Your task to perform on an android device: Clear the cart on ebay.com. Image 0: 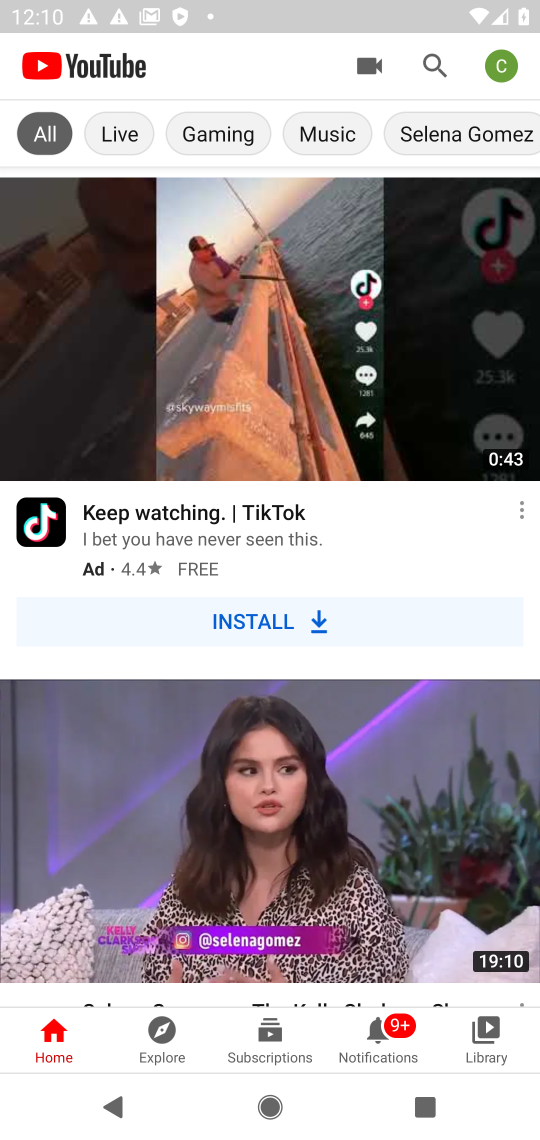
Step 0: press home button
Your task to perform on an android device: Clear the cart on ebay.com. Image 1: 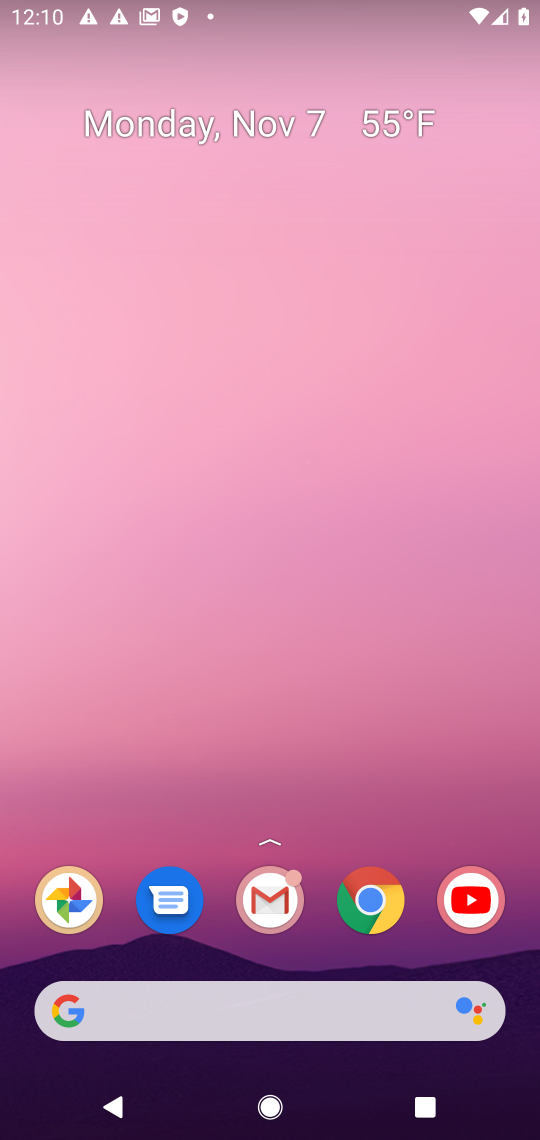
Step 1: click (195, 1008)
Your task to perform on an android device: Clear the cart on ebay.com. Image 2: 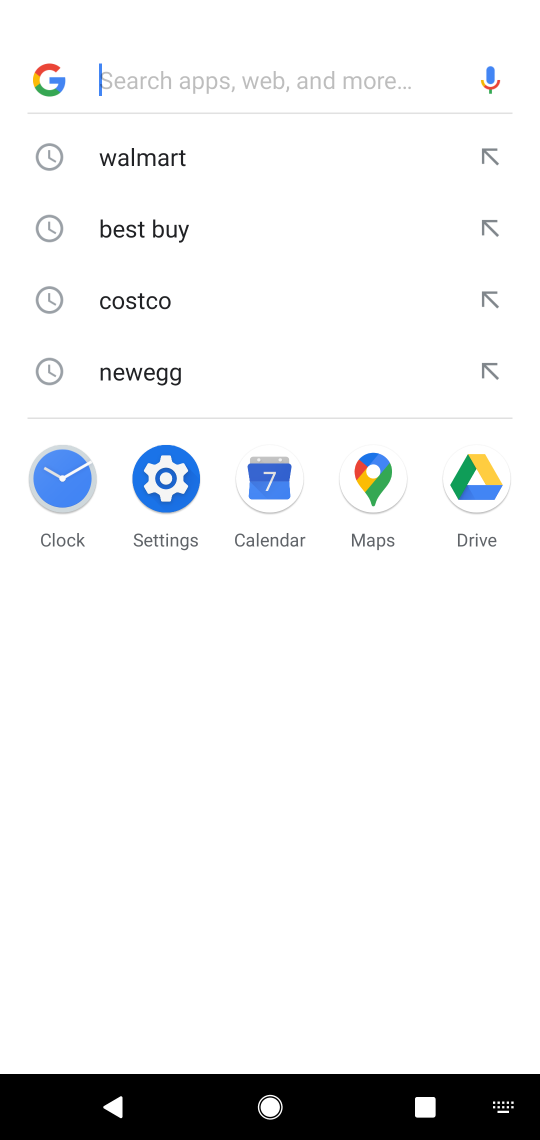
Step 2: type "ebay"
Your task to perform on an android device: Clear the cart on ebay.com. Image 3: 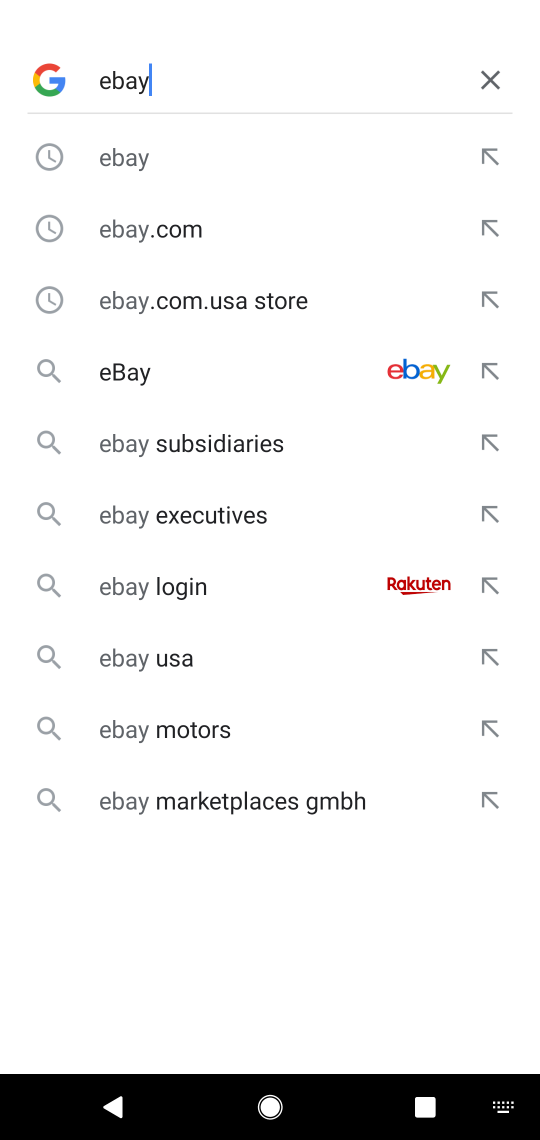
Step 3: click (366, 375)
Your task to perform on an android device: Clear the cart on ebay.com. Image 4: 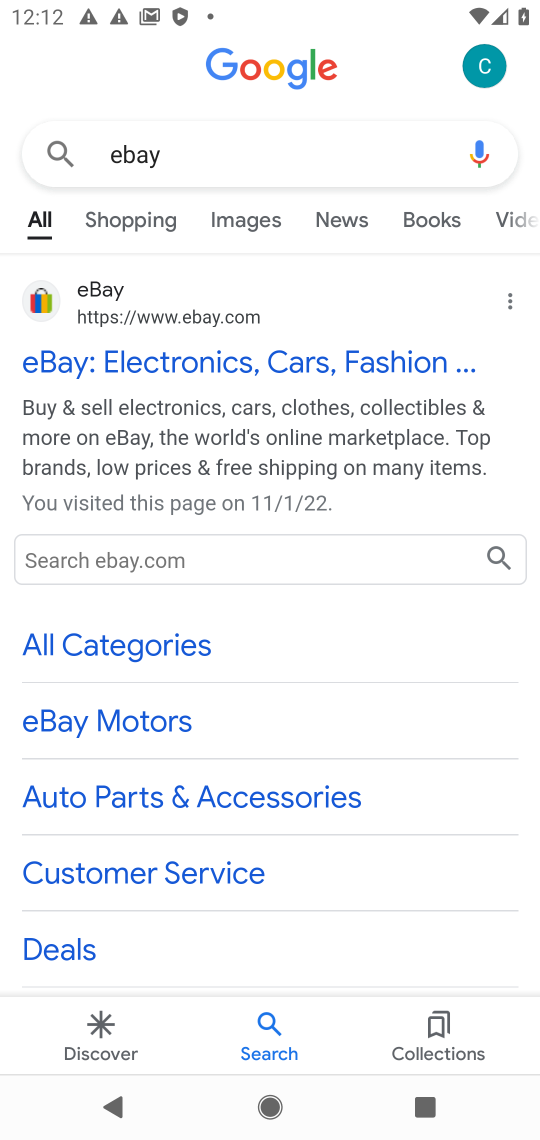
Step 4: click (184, 374)
Your task to perform on an android device: Clear the cart on ebay.com. Image 5: 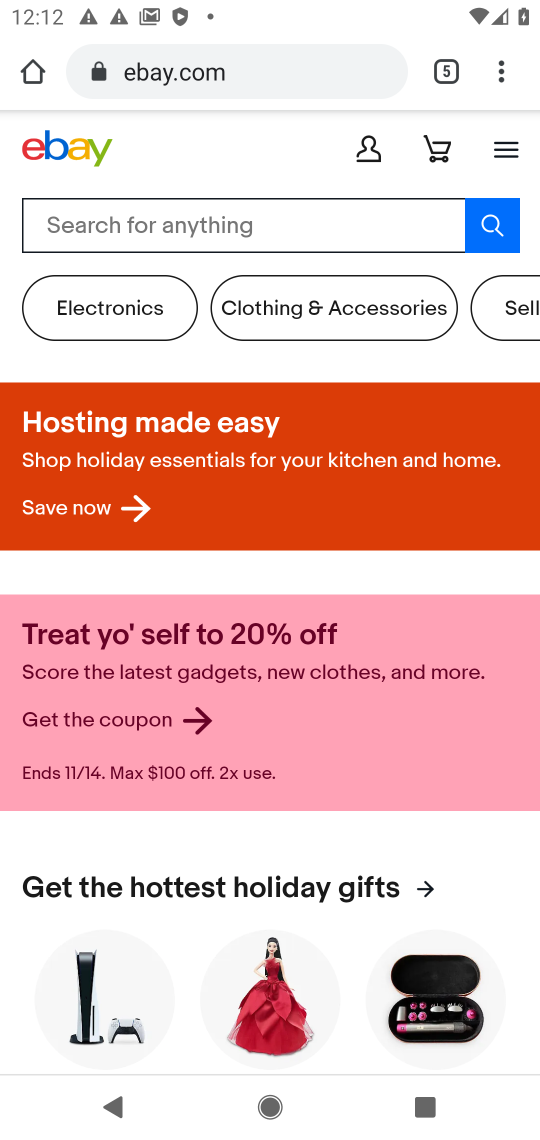
Step 5: task complete